Your task to perform on an android device: Go to eBay Image 0: 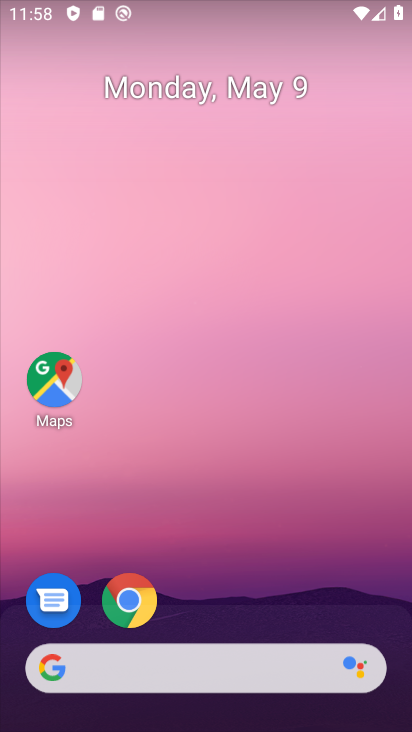
Step 0: click (156, 676)
Your task to perform on an android device: Go to eBay Image 1: 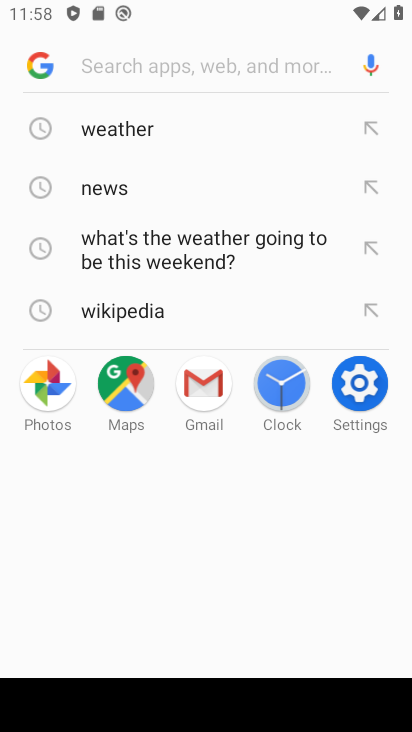
Step 1: type "ebay"
Your task to perform on an android device: Go to eBay Image 2: 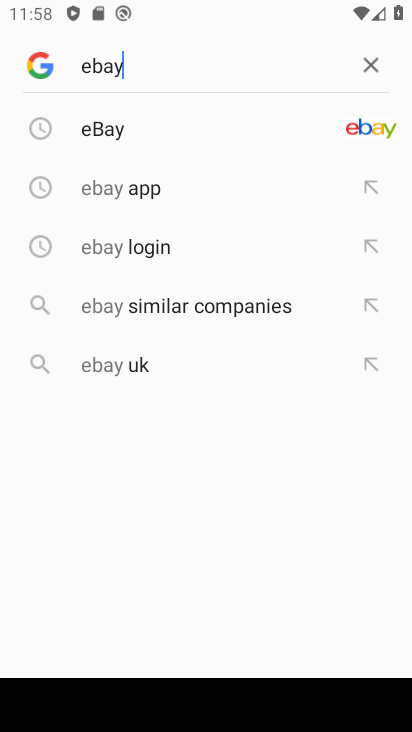
Step 2: click (140, 125)
Your task to perform on an android device: Go to eBay Image 3: 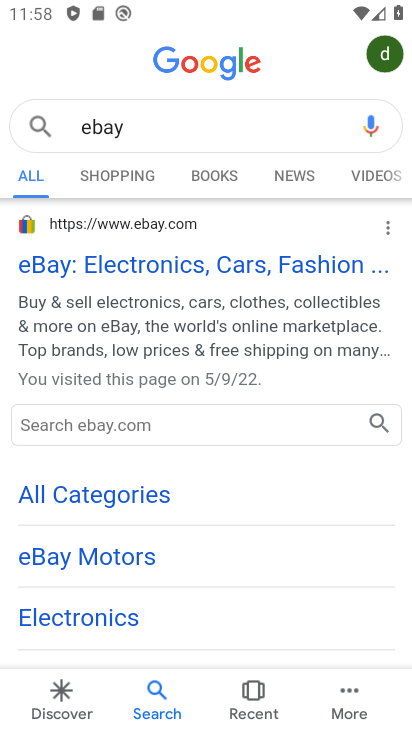
Step 3: click (162, 271)
Your task to perform on an android device: Go to eBay Image 4: 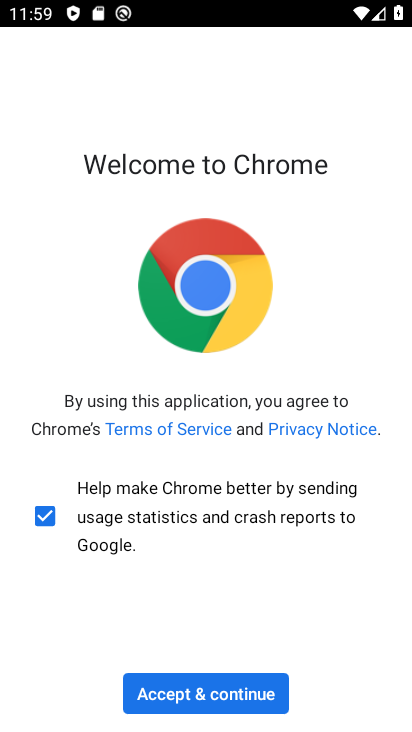
Step 4: click (190, 688)
Your task to perform on an android device: Go to eBay Image 5: 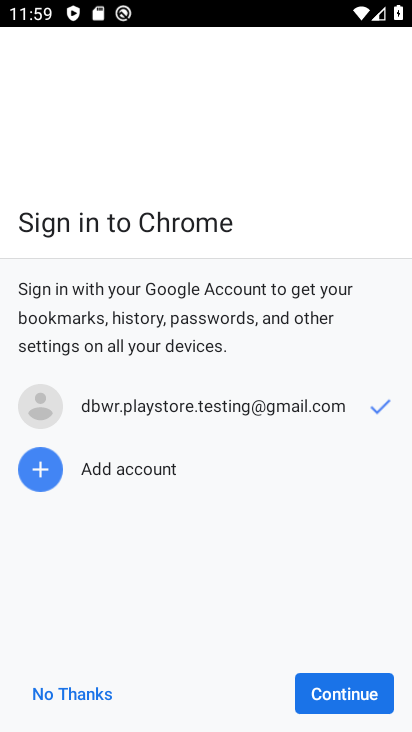
Step 5: click (314, 698)
Your task to perform on an android device: Go to eBay Image 6: 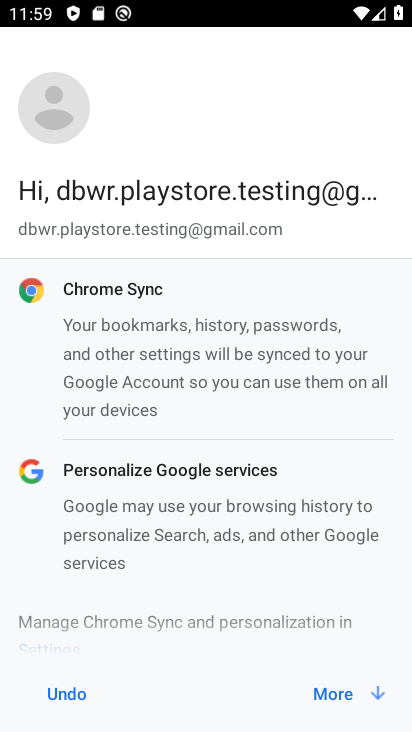
Step 6: click (314, 698)
Your task to perform on an android device: Go to eBay Image 7: 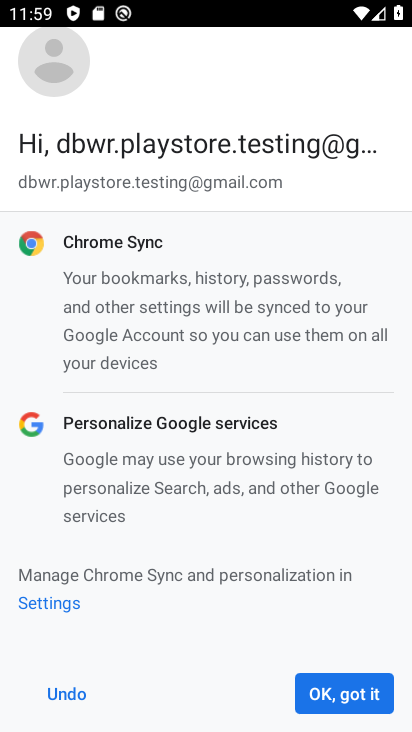
Step 7: click (314, 698)
Your task to perform on an android device: Go to eBay Image 8: 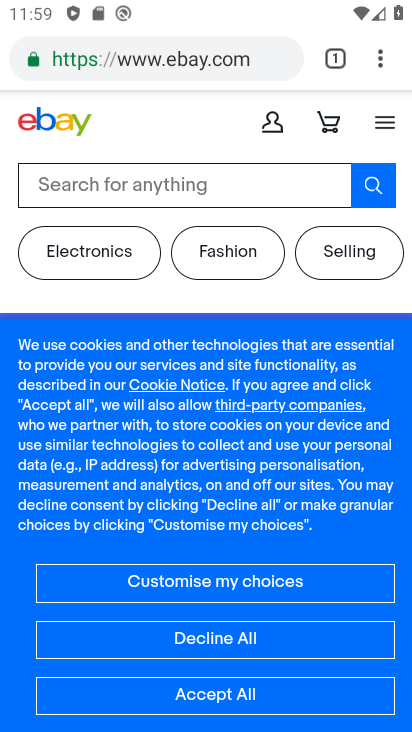
Step 8: task complete